Your task to perform on an android device: Open Youtube and go to "Your channel" Image 0: 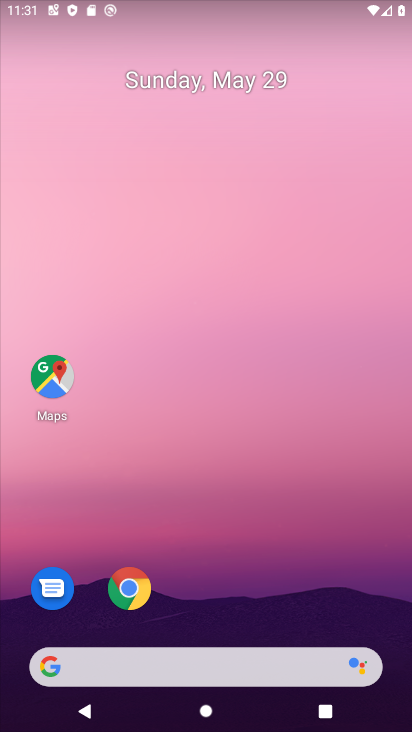
Step 0: drag from (312, 498) to (313, 0)
Your task to perform on an android device: Open Youtube and go to "Your channel" Image 1: 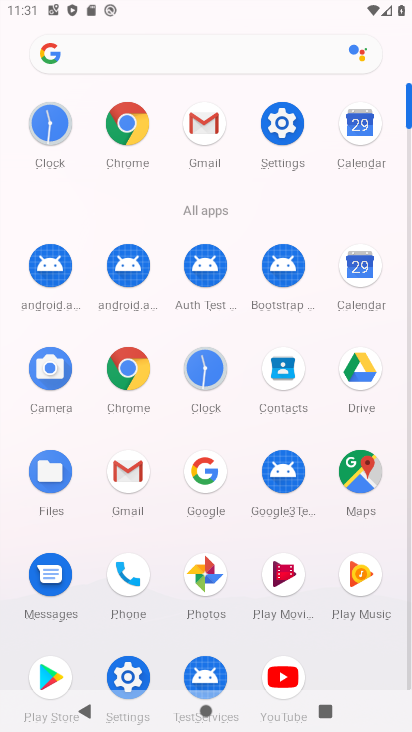
Step 1: click (290, 678)
Your task to perform on an android device: Open Youtube and go to "Your channel" Image 2: 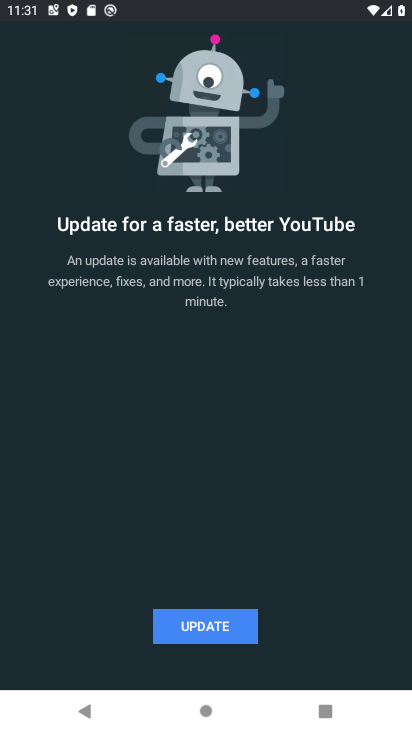
Step 2: click (217, 635)
Your task to perform on an android device: Open Youtube and go to "Your channel" Image 3: 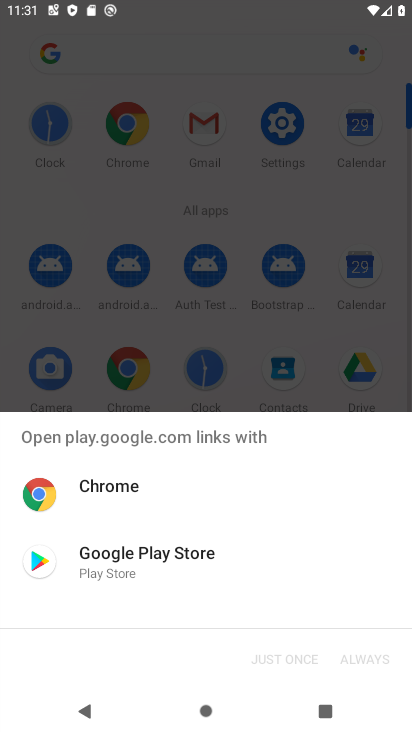
Step 3: click (128, 562)
Your task to perform on an android device: Open Youtube and go to "Your channel" Image 4: 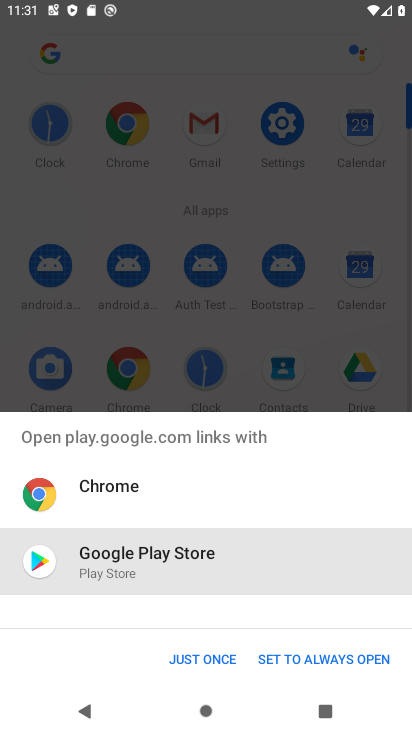
Step 4: click (202, 658)
Your task to perform on an android device: Open Youtube and go to "Your channel" Image 5: 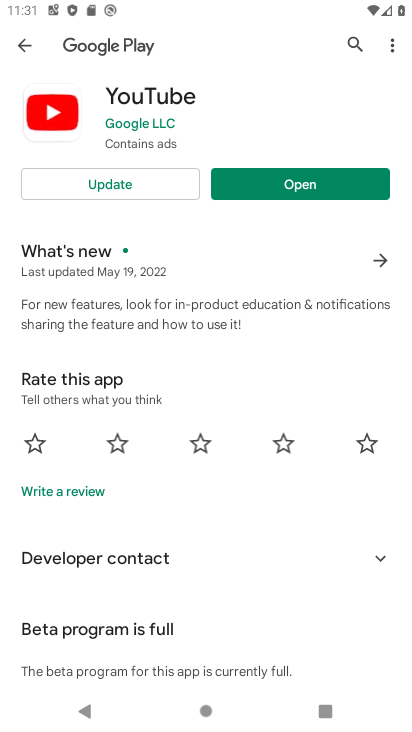
Step 5: click (81, 176)
Your task to perform on an android device: Open Youtube and go to "Your channel" Image 6: 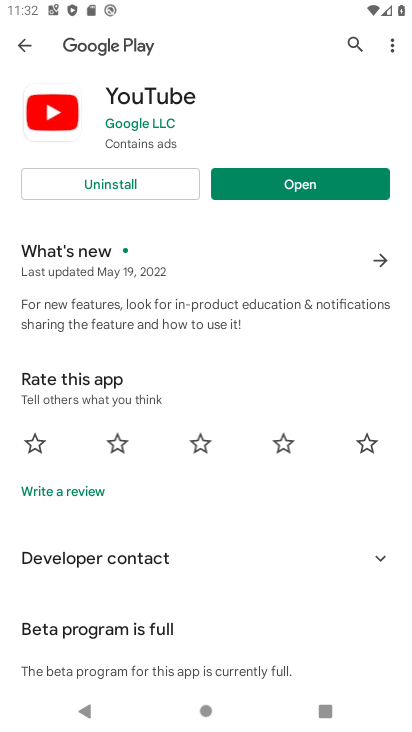
Step 6: click (301, 184)
Your task to perform on an android device: Open Youtube and go to "Your channel" Image 7: 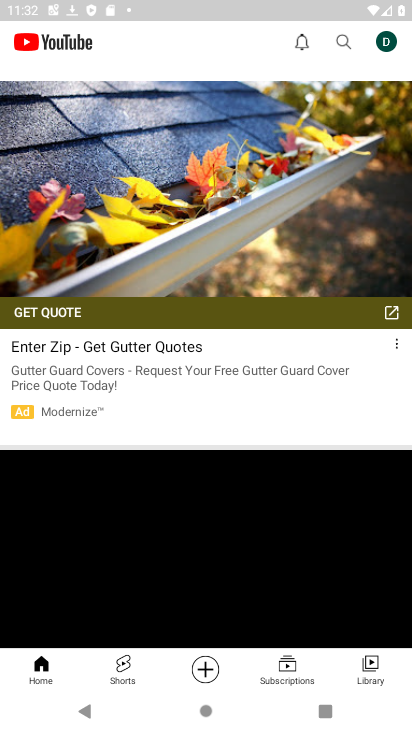
Step 7: click (391, 34)
Your task to perform on an android device: Open Youtube and go to "Your channel" Image 8: 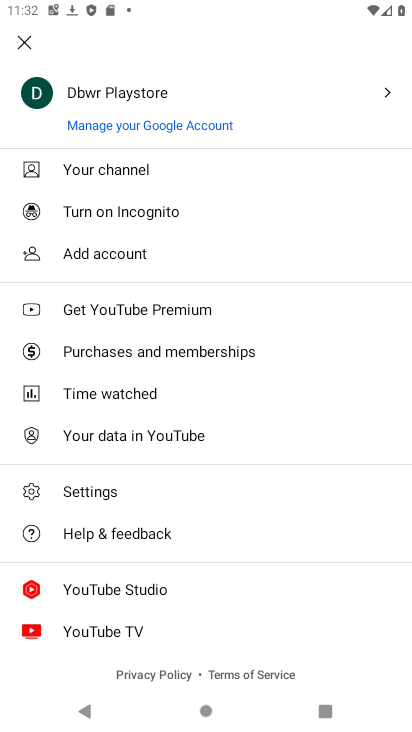
Step 8: click (82, 165)
Your task to perform on an android device: Open Youtube and go to "Your channel" Image 9: 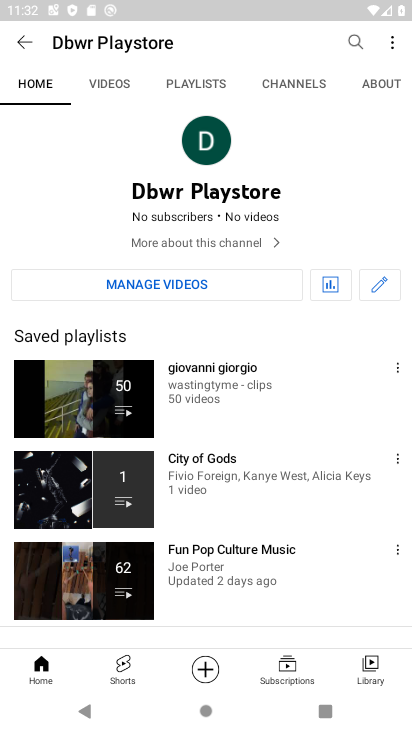
Step 9: task complete